Your task to perform on an android device: delete the emails in spam in the gmail app Image 0: 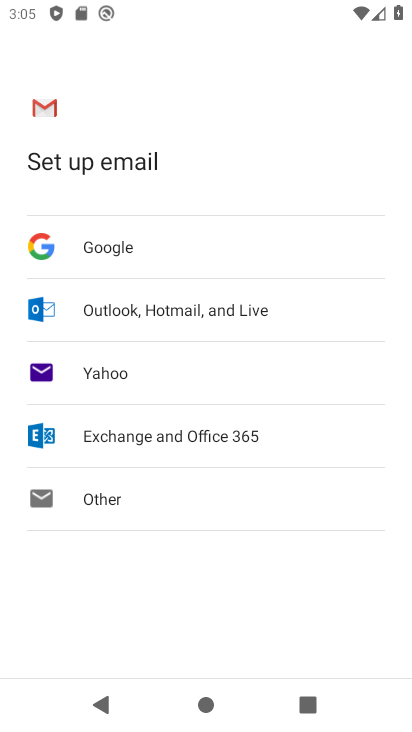
Step 0: press home button
Your task to perform on an android device: delete the emails in spam in the gmail app Image 1: 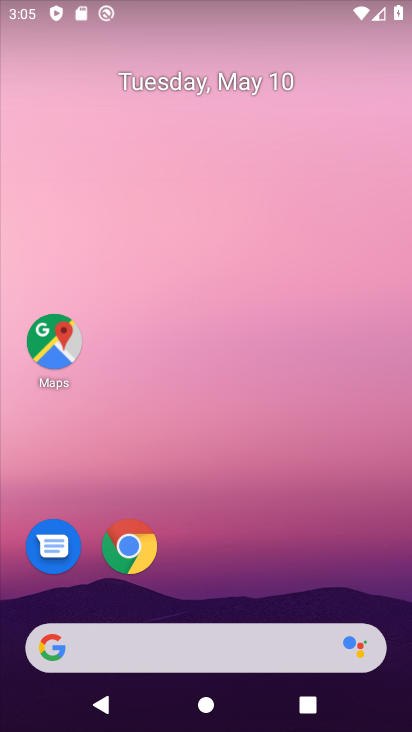
Step 1: drag from (193, 576) to (302, 1)
Your task to perform on an android device: delete the emails in spam in the gmail app Image 2: 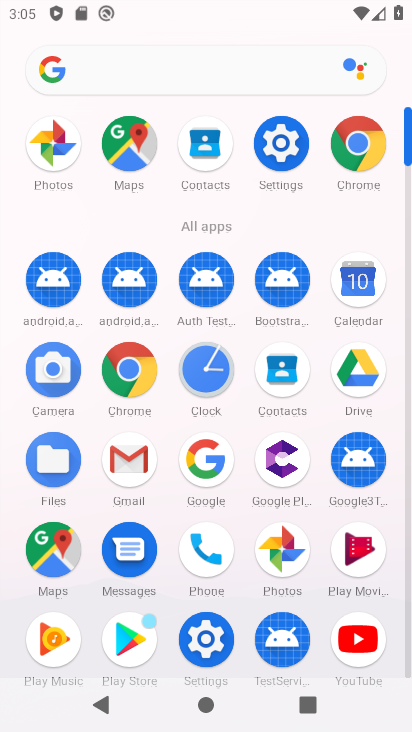
Step 2: click (112, 474)
Your task to perform on an android device: delete the emails in spam in the gmail app Image 3: 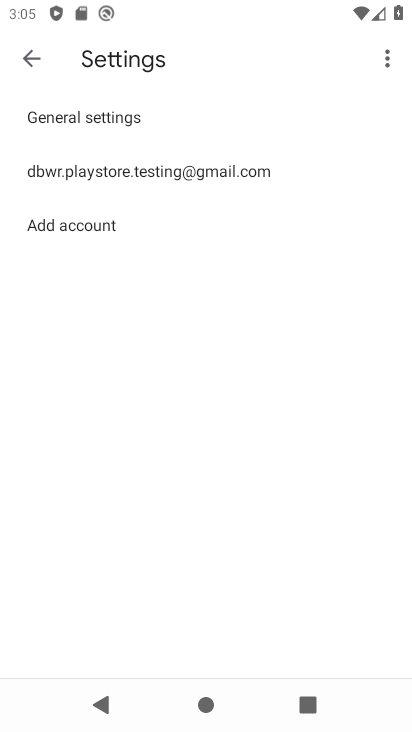
Step 3: click (35, 69)
Your task to perform on an android device: delete the emails in spam in the gmail app Image 4: 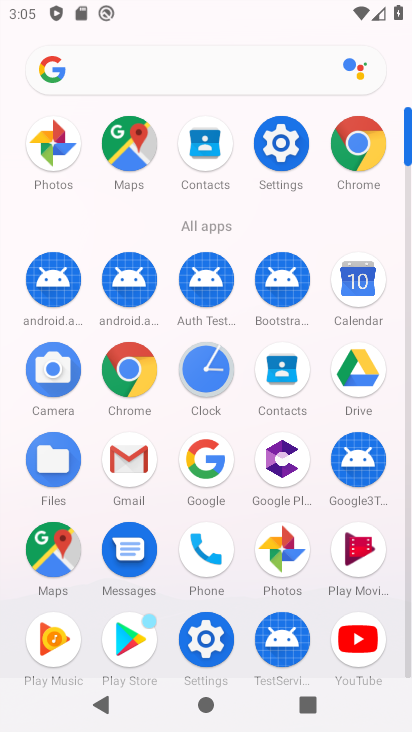
Step 4: click (136, 473)
Your task to perform on an android device: delete the emails in spam in the gmail app Image 5: 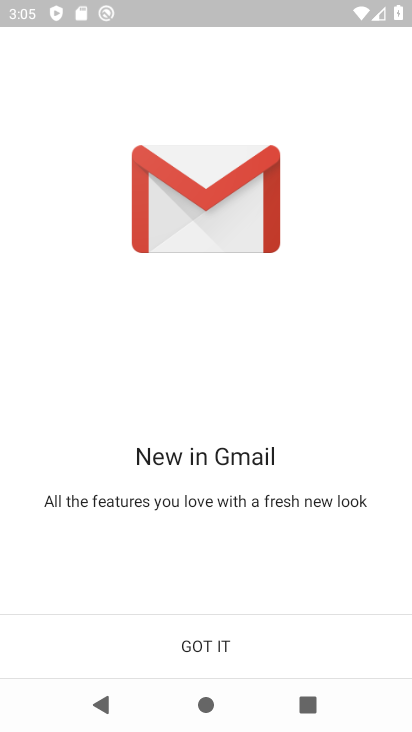
Step 5: click (184, 650)
Your task to perform on an android device: delete the emails in spam in the gmail app Image 6: 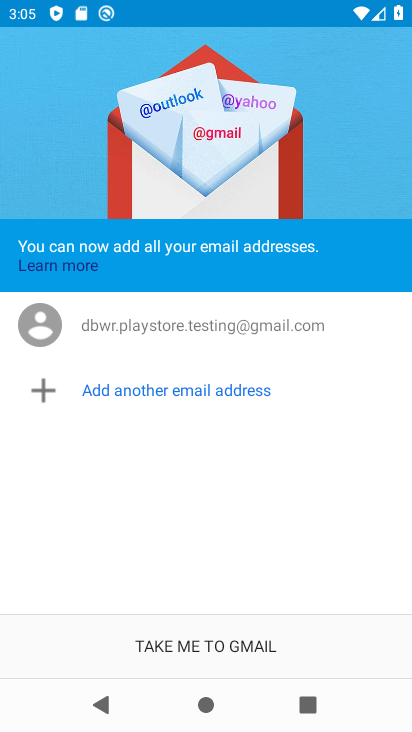
Step 6: click (183, 651)
Your task to perform on an android device: delete the emails in spam in the gmail app Image 7: 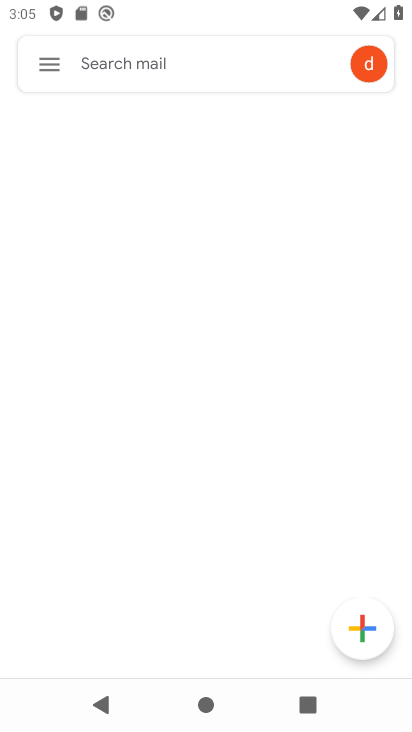
Step 7: click (53, 62)
Your task to perform on an android device: delete the emails in spam in the gmail app Image 8: 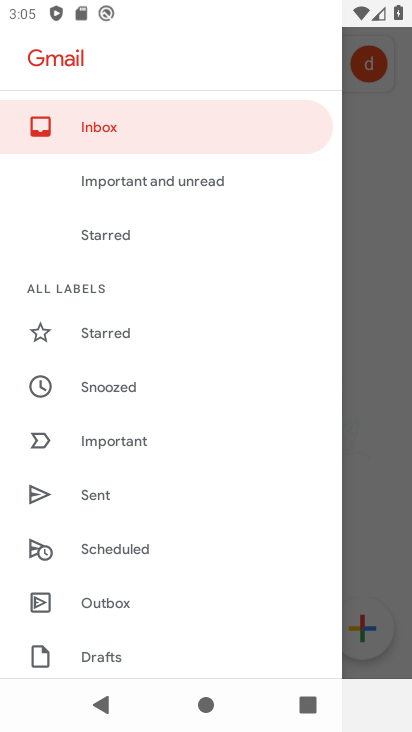
Step 8: drag from (138, 526) to (185, 300)
Your task to perform on an android device: delete the emails in spam in the gmail app Image 9: 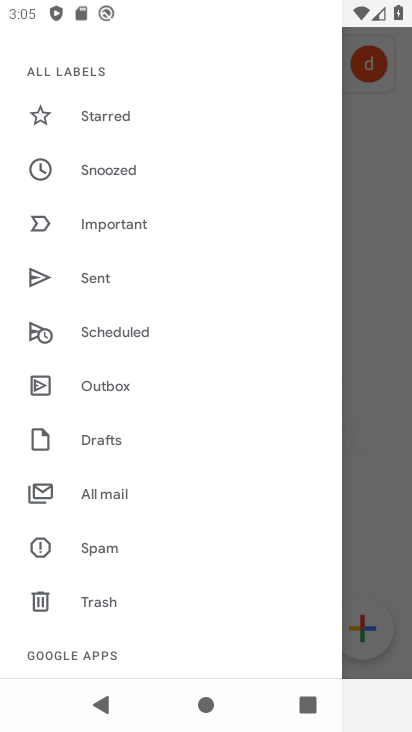
Step 9: click (125, 551)
Your task to perform on an android device: delete the emails in spam in the gmail app Image 10: 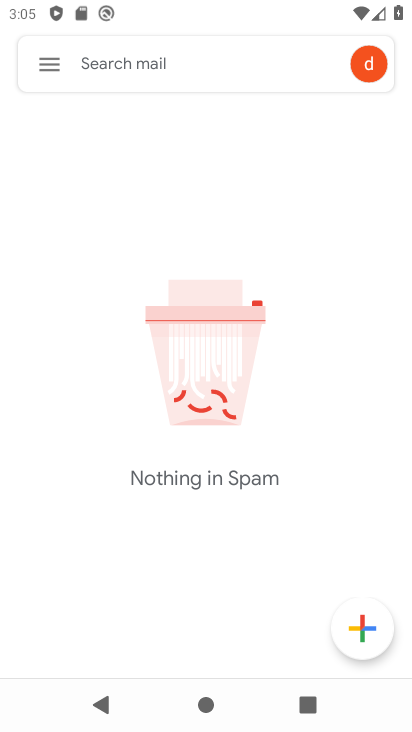
Step 10: task complete